Your task to perform on an android device: Open Youtube and go to the subscriptions tab Image 0: 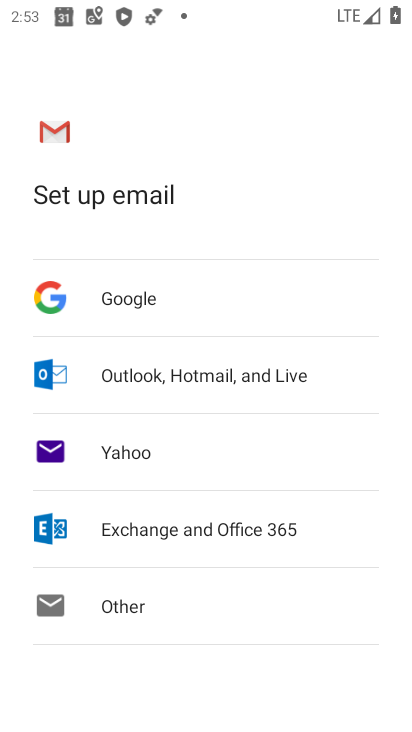
Step 0: press home button
Your task to perform on an android device: Open Youtube and go to the subscriptions tab Image 1: 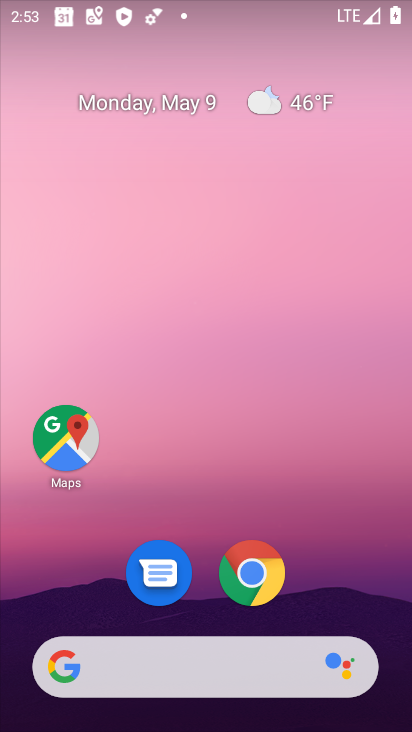
Step 1: drag from (369, 579) to (320, 87)
Your task to perform on an android device: Open Youtube and go to the subscriptions tab Image 2: 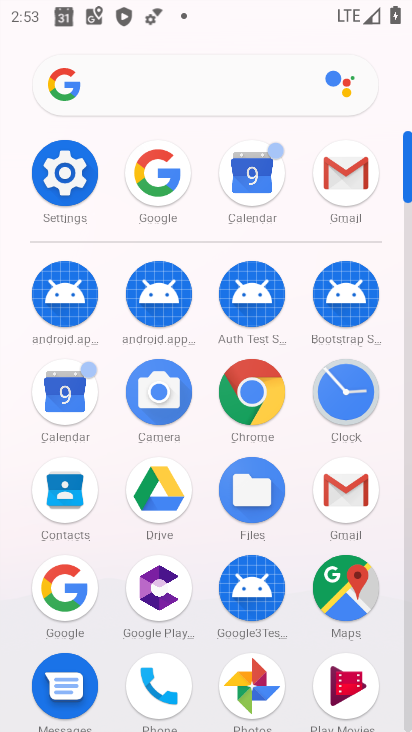
Step 2: drag from (201, 557) to (216, 147)
Your task to perform on an android device: Open Youtube and go to the subscriptions tab Image 3: 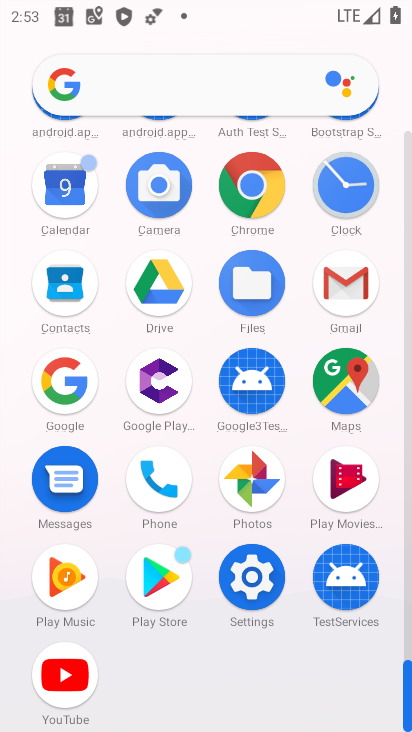
Step 3: click (63, 665)
Your task to perform on an android device: Open Youtube and go to the subscriptions tab Image 4: 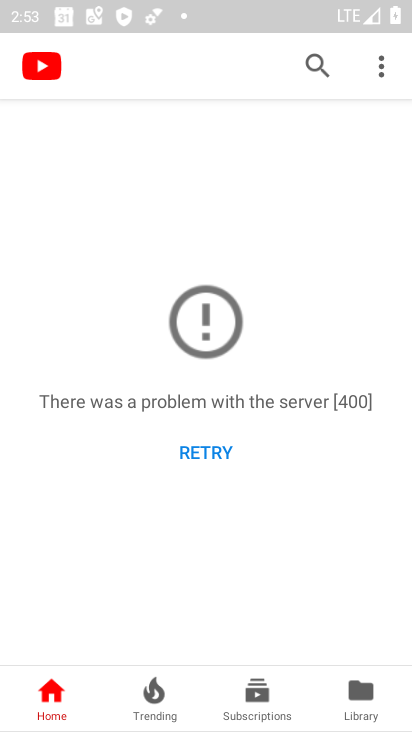
Step 4: click (244, 702)
Your task to perform on an android device: Open Youtube and go to the subscriptions tab Image 5: 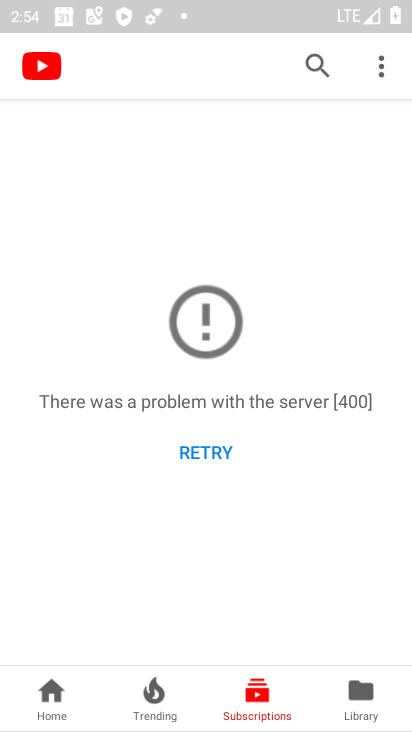
Step 5: task complete